Your task to perform on an android device: change text size in settings app Image 0: 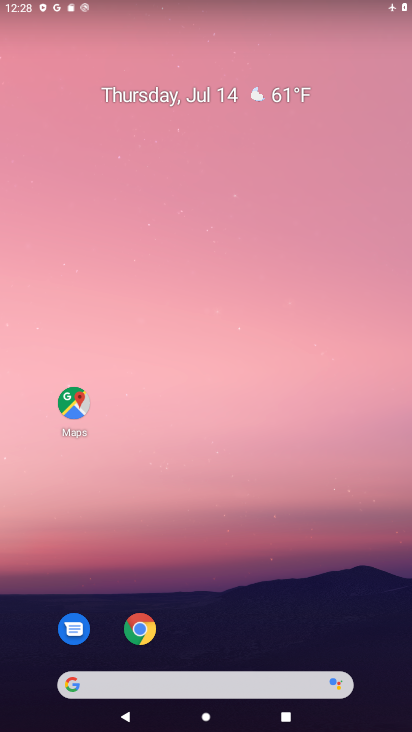
Step 0: drag from (232, 623) to (249, 3)
Your task to perform on an android device: change text size in settings app Image 1: 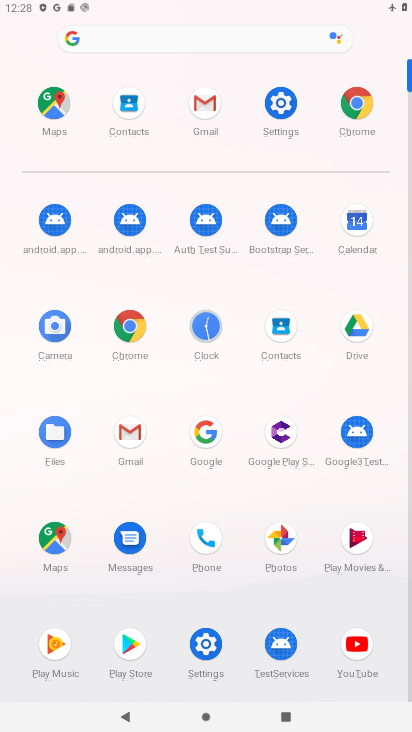
Step 1: click (293, 109)
Your task to perform on an android device: change text size in settings app Image 2: 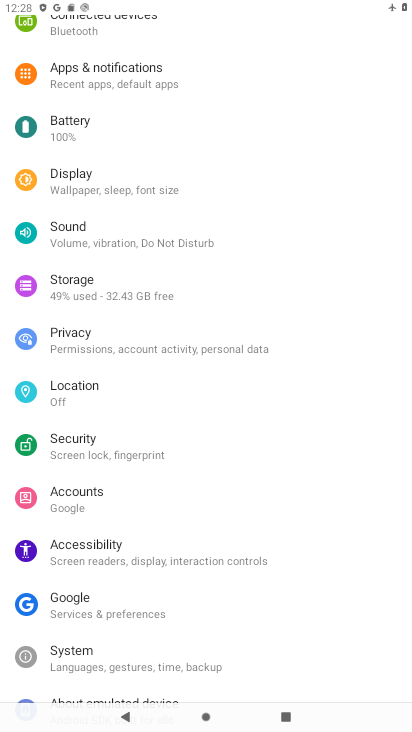
Step 2: click (97, 195)
Your task to perform on an android device: change text size in settings app Image 3: 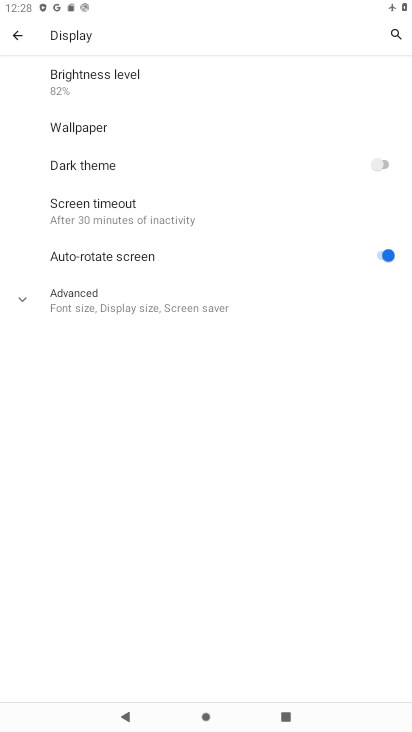
Step 3: click (129, 321)
Your task to perform on an android device: change text size in settings app Image 4: 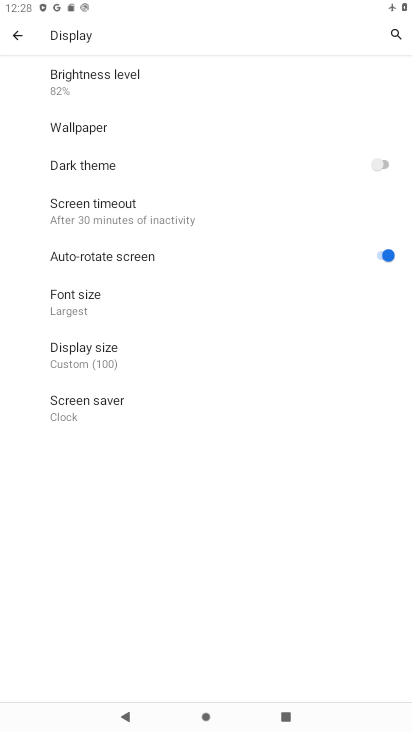
Step 4: click (119, 323)
Your task to perform on an android device: change text size in settings app Image 5: 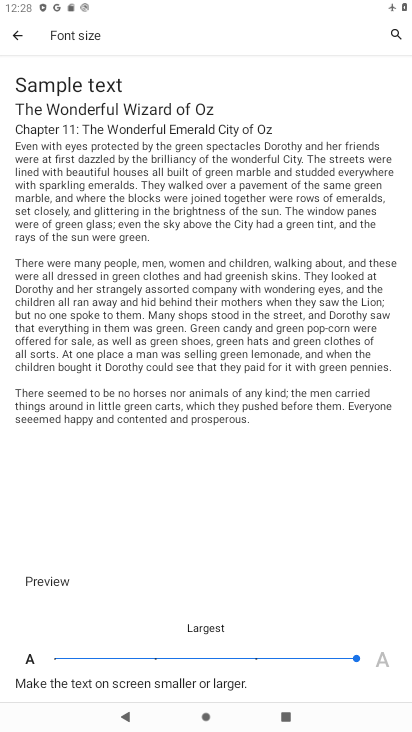
Step 5: click (256, 663)
Your task to perform on an android device: change text size in settings app Image 6: 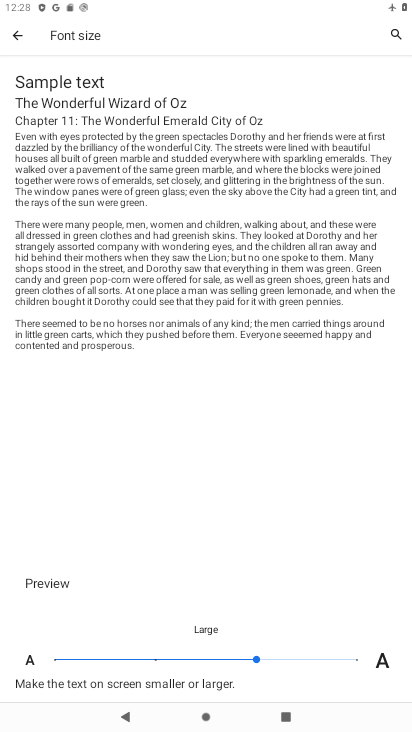
Step 6: task complete